Your task to perform on an android device: read, delete, or share a saved page in the chrome app Image 0: 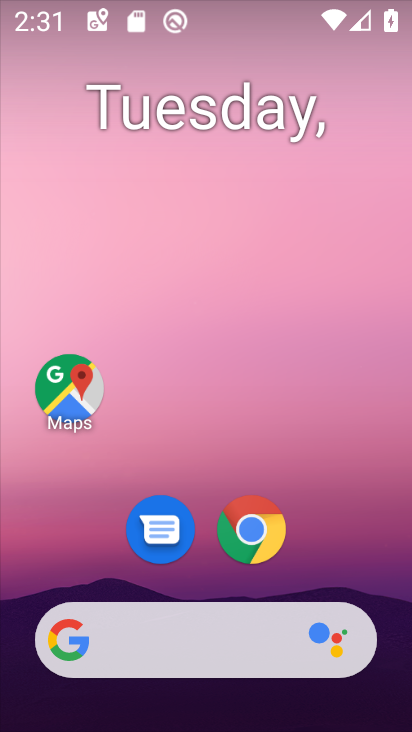
Step 0: drag from (330, 554) to (330, 271)
Your task to perform on an android device: read, delete, or share a saved page in the chrome app Image 1: 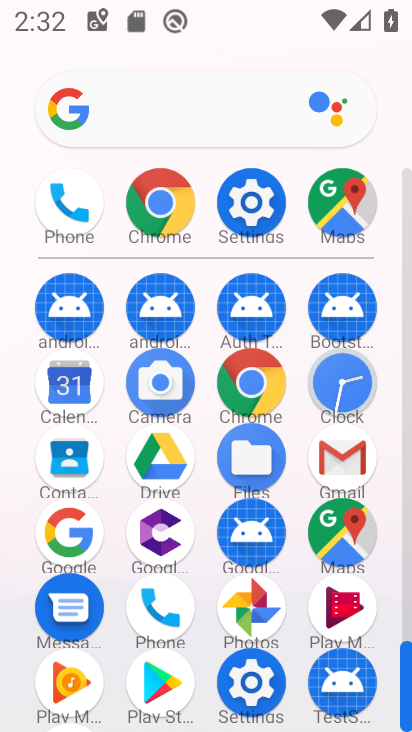
Step 1: click (239, 379)
Your task to perform on an android device: read, delete, or share a saved page in the chrome app Image 2: 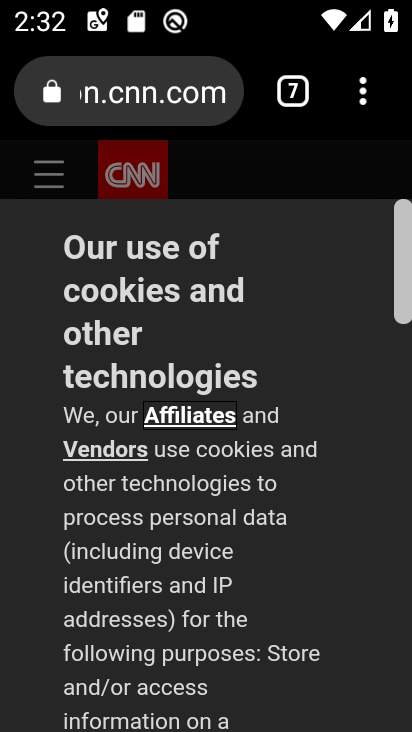
Step 2: click (348, 97)
Your task to perform on an android device: read, delete, or share a saved page in the chrome app Image 3: 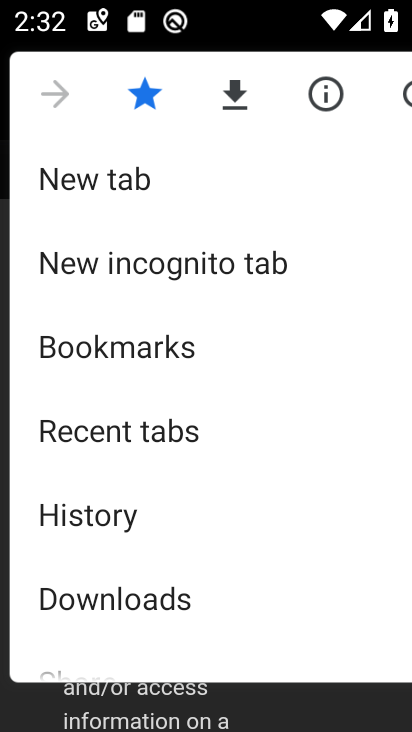
Step 3: click (170, 586)
Your task to perform on an android device: read, delete, or share a saved page in the chrome app Image 4: 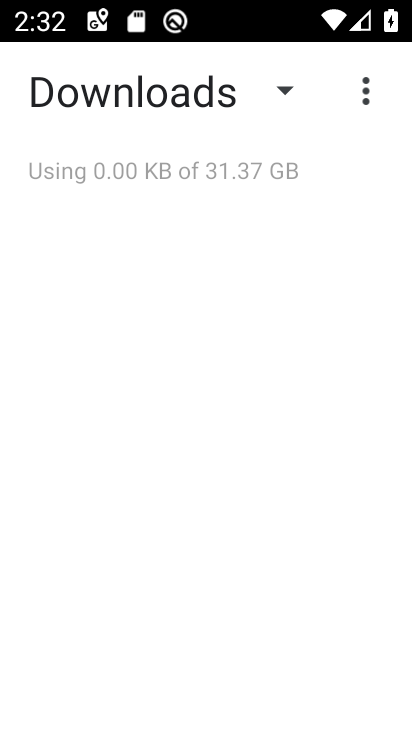
Step 4: click (279, 87)
Your task to perform on an android device: read, delete, or share a saved page in the chrome app Image 5: 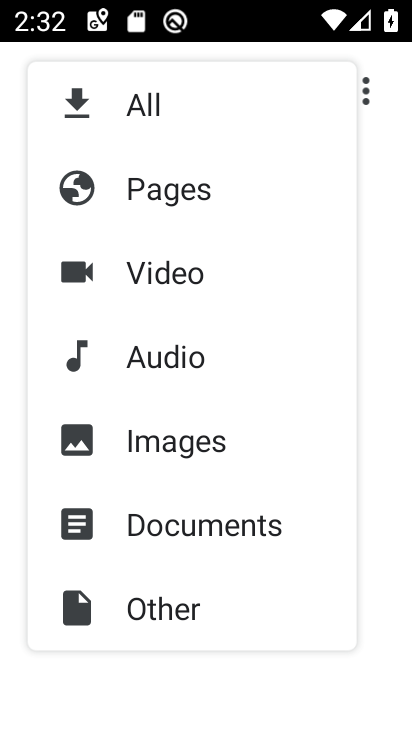
Step 5: click (161, 203)
Your task to perform on an android device: read, delete, or share a saved page in the chrome app Image 6: 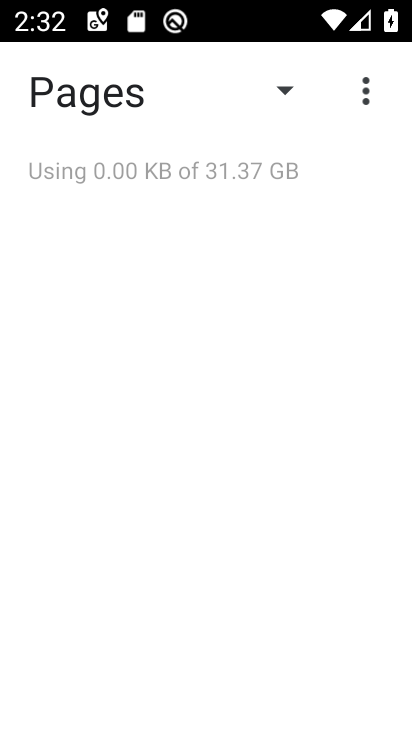
Step 6: task complete